Your task to perform on an android device: Open the web browser Image 0: 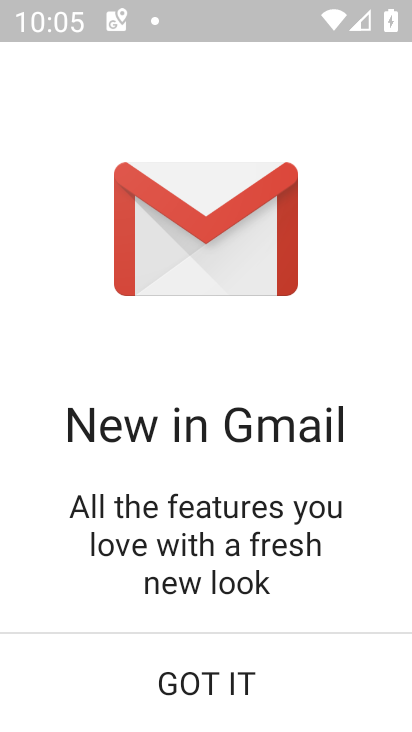
Step 0: press home button
Your task to perform on an android device: Open the web browser Image 1: 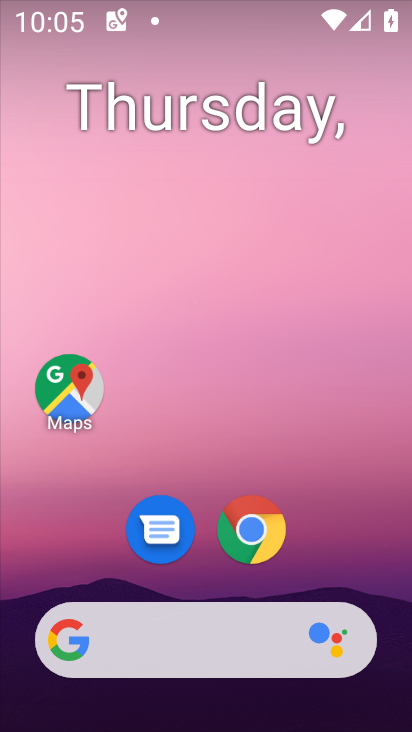
Step 1: click (235, 528)
Your task to perform on an android device: Open the web browser Image 2: 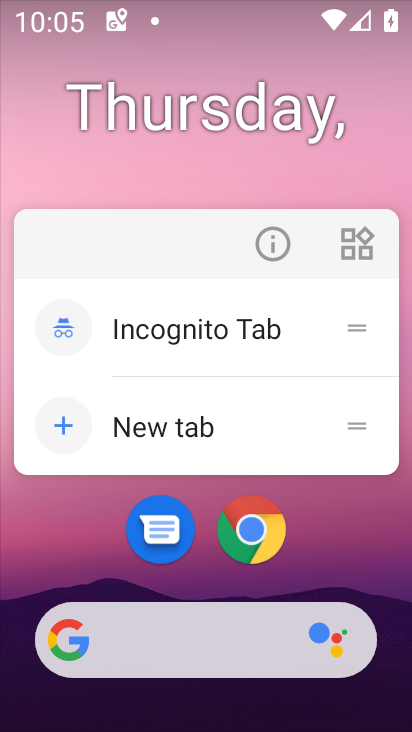
Step 2: click (235, 527)
Your task to perform on an android device: Open the web browser Image 3: 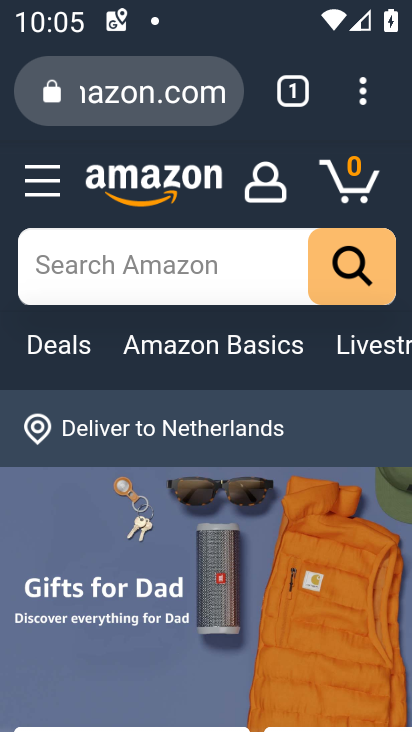
Step 3: task complete